Your task to perform on an android device: Open calendar and show me the second week of next month Image 0: 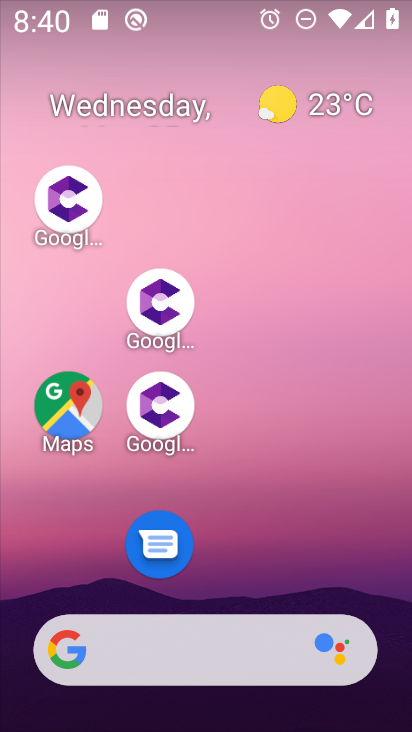
Step 0: drag from (311, 508) to (226, 57)
Your task to perform on an android device: Open calendar and show me the second week of next month Image 1: 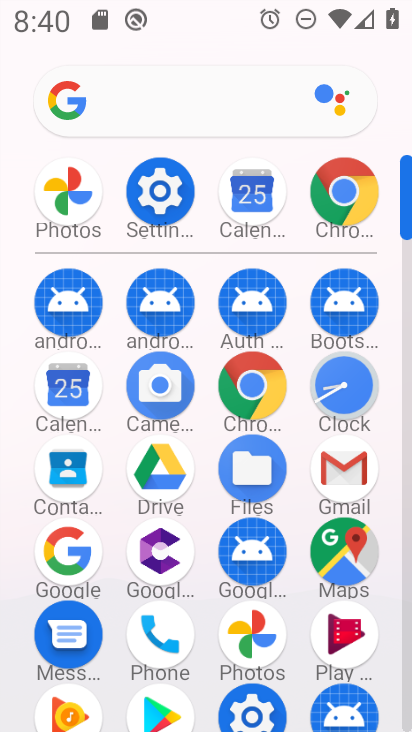
Step 1: click (72, 386)
Your task to perform on an android device: Open calendar and show me the second week of next month Image 2: 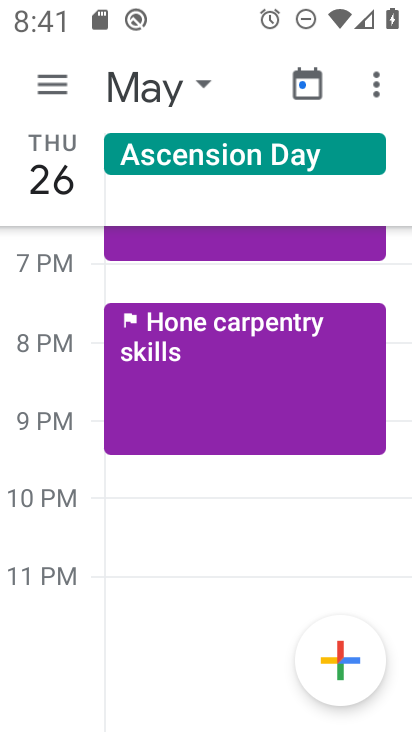
Step 2: click (62, 77)
Your task to perform on an android device: Open calendar and show me the second week of next month Image 3: 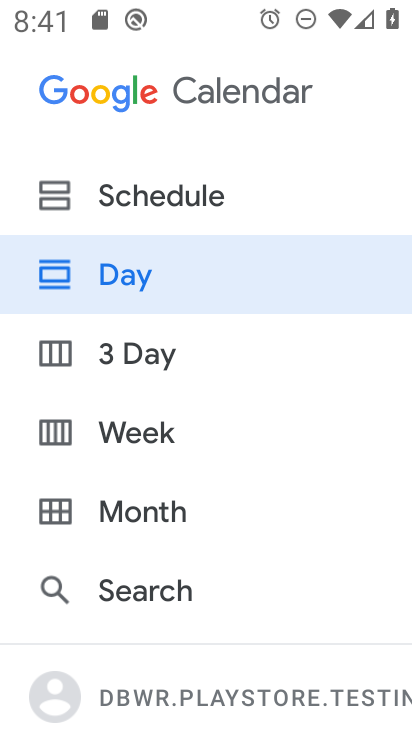
Step 3: click (131, 413)
Your task to perform on an android device: Open calendar and show me the second week of next month Image 4: 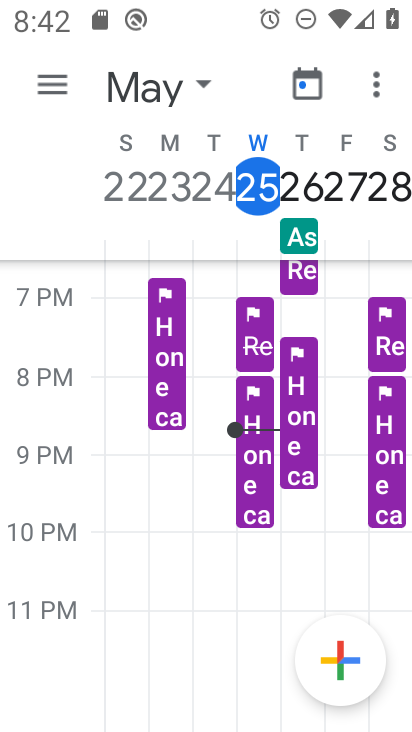
Step 4: click (202, 79)
Your task to perform on an android device: Open calendar and show me the second week of next month Image 5: 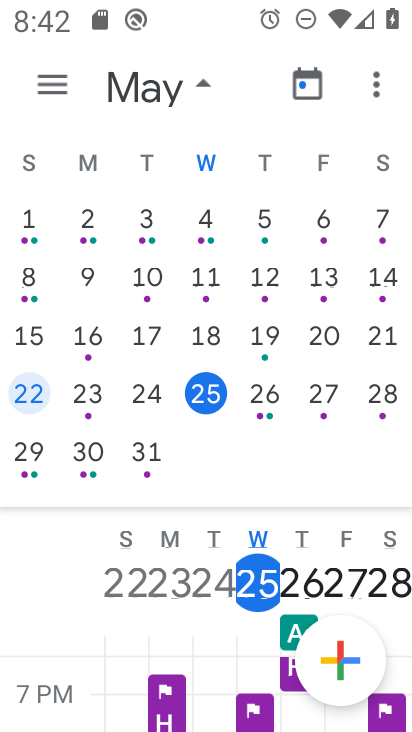
Step 5: drag from (367, 315) to (52, 308)
Your task to perform on an android device: Open calendar and show me the second week of next month Image 6: 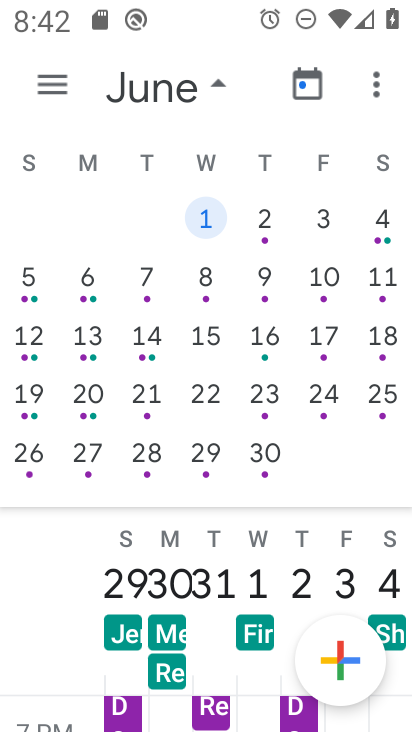
Step 6: click (204, 269)
Your task to perform on an android device: Open calendar and show me the second week of next month Image 7: 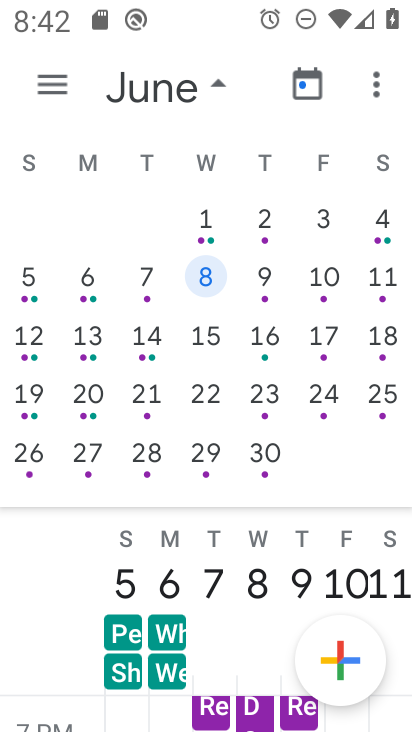
Step 7: task complete